Your task to perform on an android device: Search for acer nitro on amazon.com, select the first entry, add it to the cart, then select checkout. Image 0: 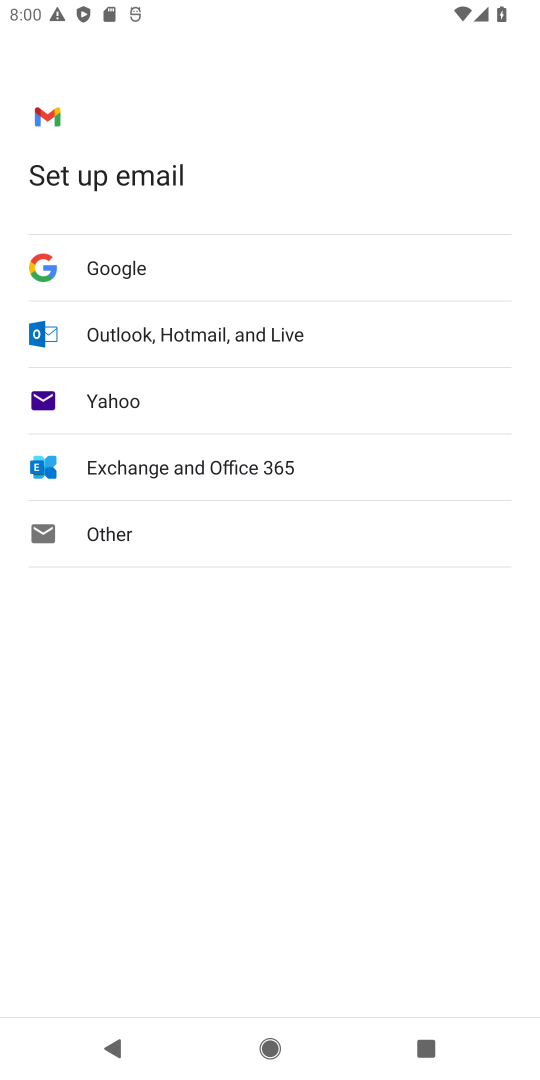
Step 0: press home button
Your task to perform on an android device: Search for acer nitro on amazon.com, select the first entry, add it to the cart, then select checkout. Image 1: 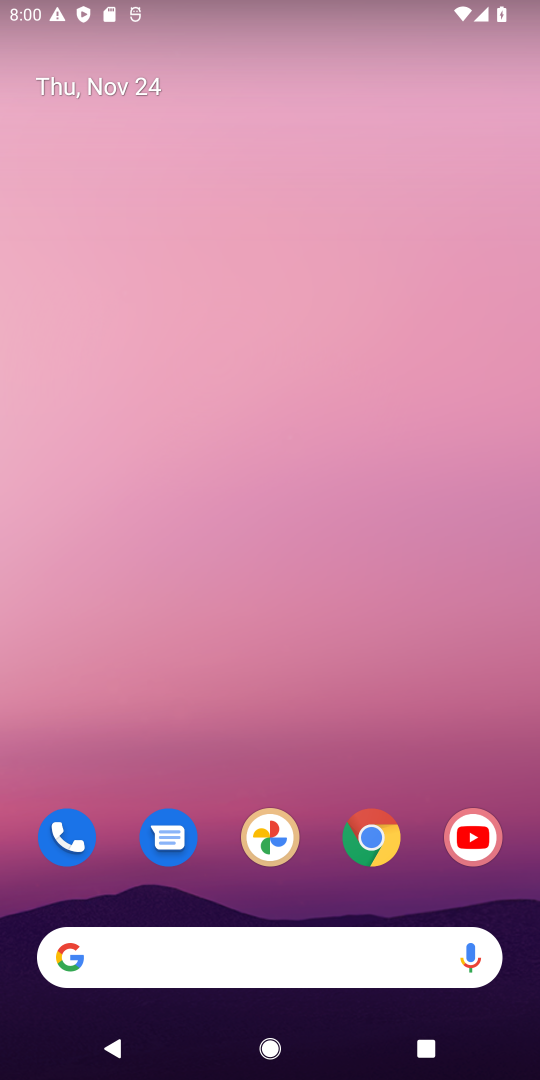
Step 1: click (386, 829)
Your task to perform on an android device: Search for acer nitro on amazon.com, select the first entry, add it to the cart, then select checkout. Image 2: 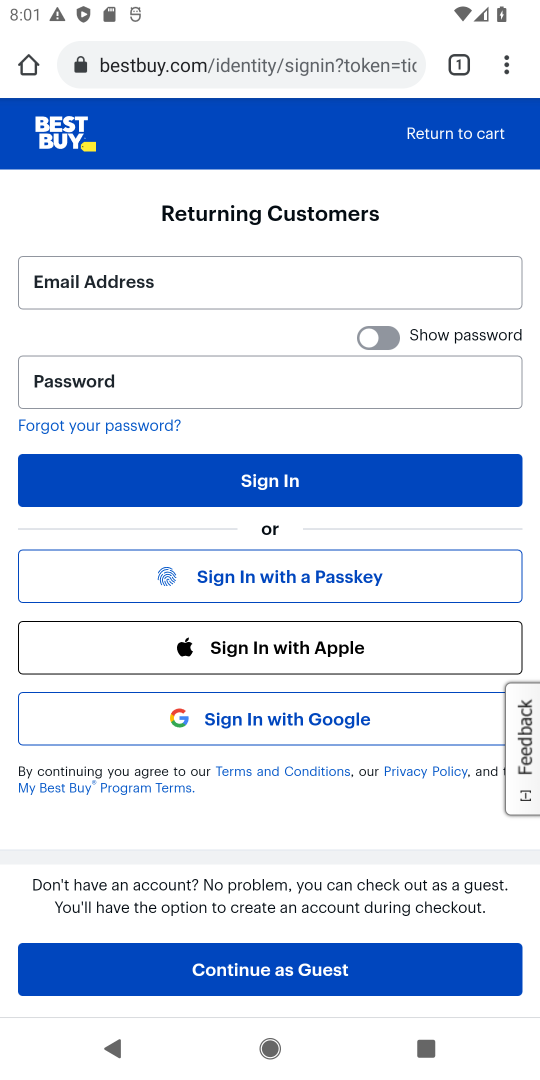
Step 2: click (288, 63)
Your task to perform on an android device: Search for acer nitro on amazon.com, select the first entry, add it to the cart, then select checkout. Image 3: 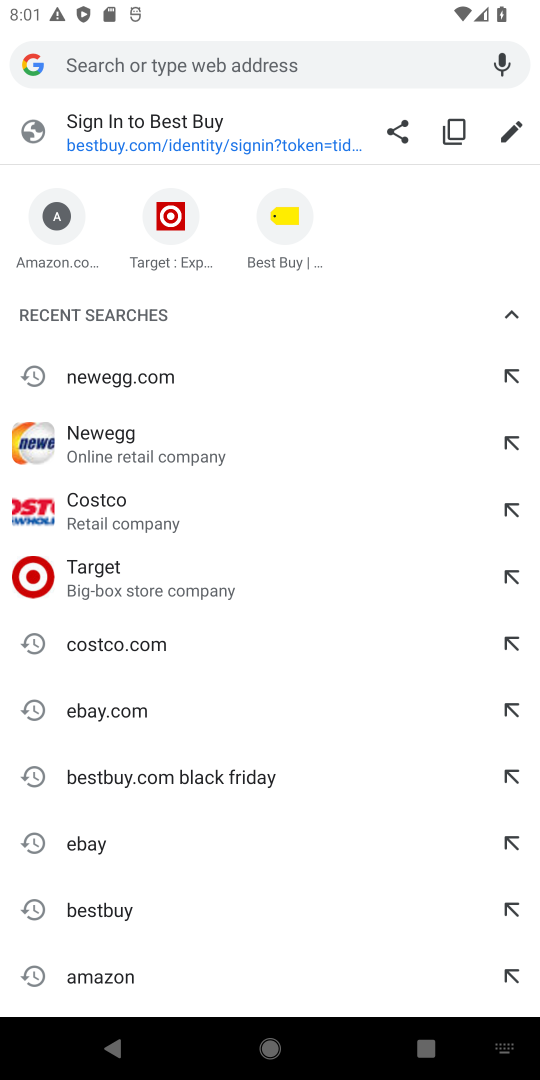
Step 3: type "amazon.com"
Your task to perform on an android device: Search for acer nitro on amazon.com, select the first entry, add it to the cart, then select checkout. Image 4: 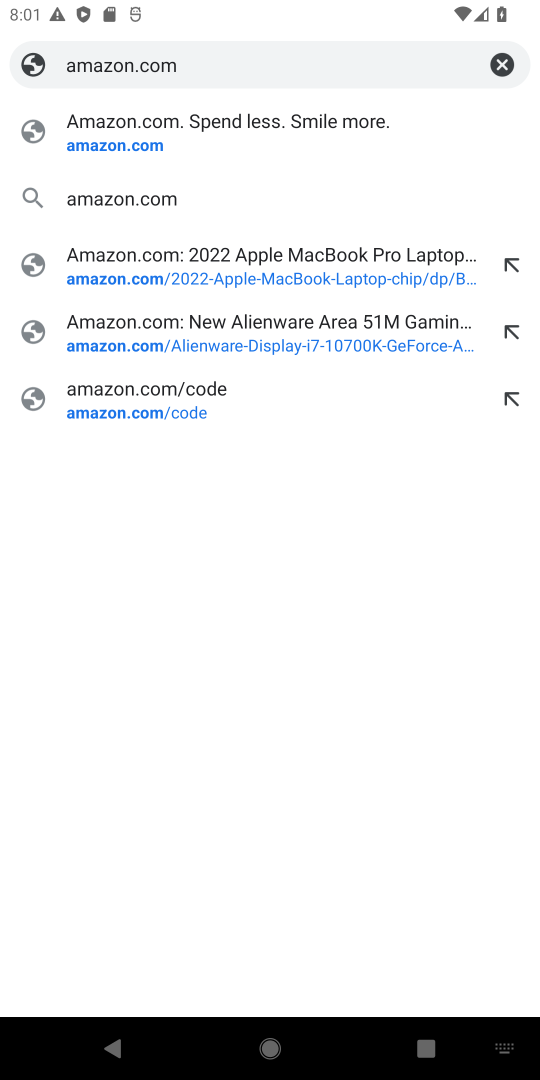
Step 4: click (316, 141)
Your task to perform on an android device: Search for acer nitro on amazon.com, select the first entry, add it to the cart, then select checkout. Image 5: 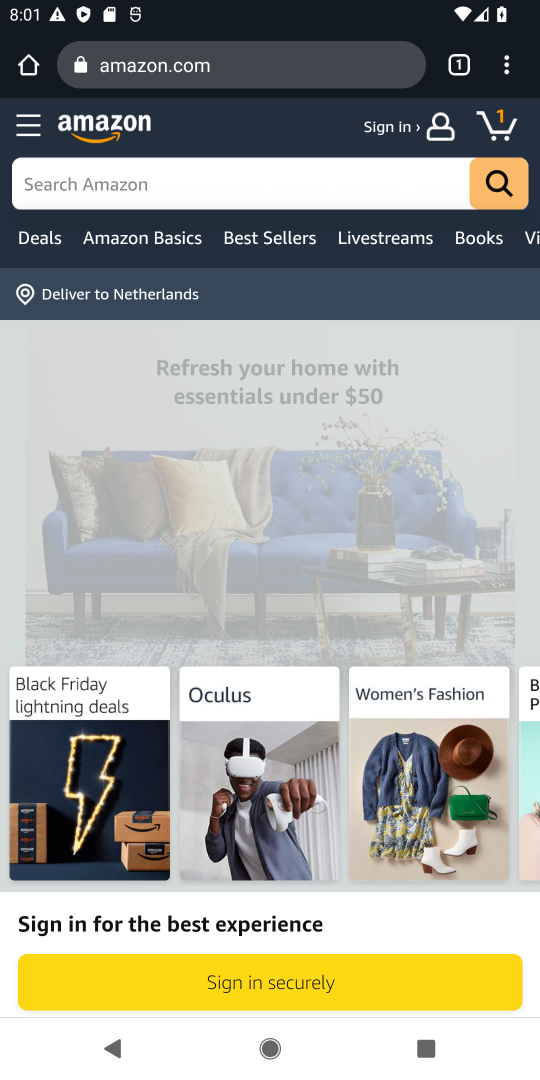
Step 5: click (284, 186)
Your task to perform on an android device: Search for acer nitro on amazon.com, select the first entry, add it to the cart, then select checkout. Image 6: 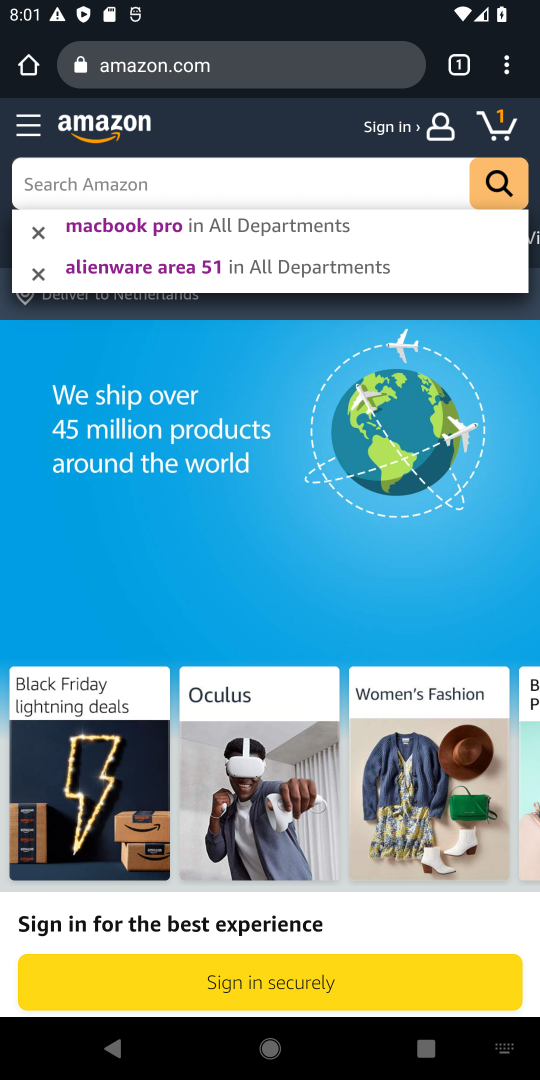
Step 6: type "acer nitro"
Your task to perform on an android device: Search for acer nitro on amazon.com, select the first entry, add it to the cart, then select checkout. Image 7: 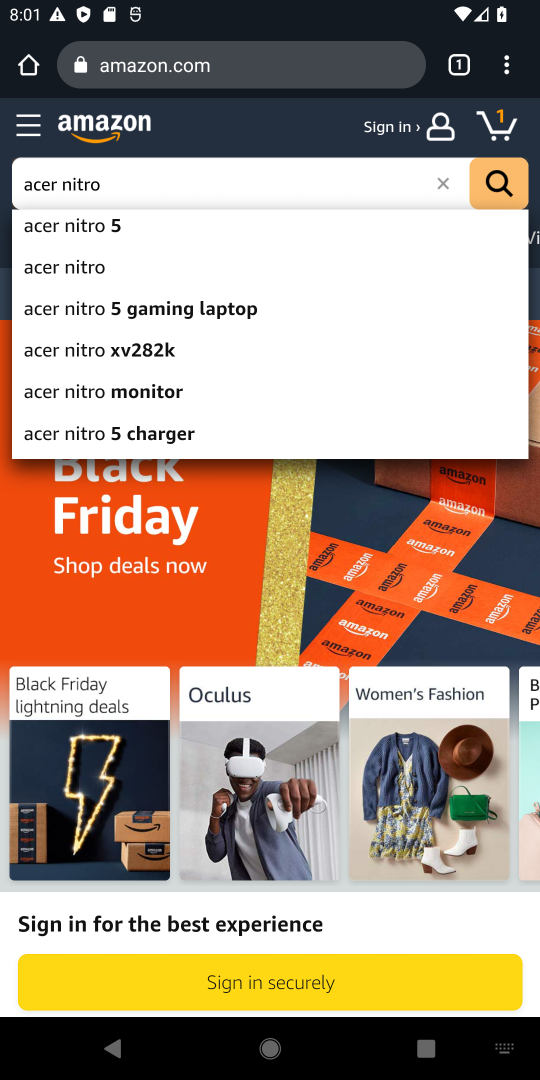
Step 7: click (91, 275)
Your task to perform on an android device: Search for acer nitro on amazon.com, select the first entry, add it to the cart, then select checkout. Image 8: 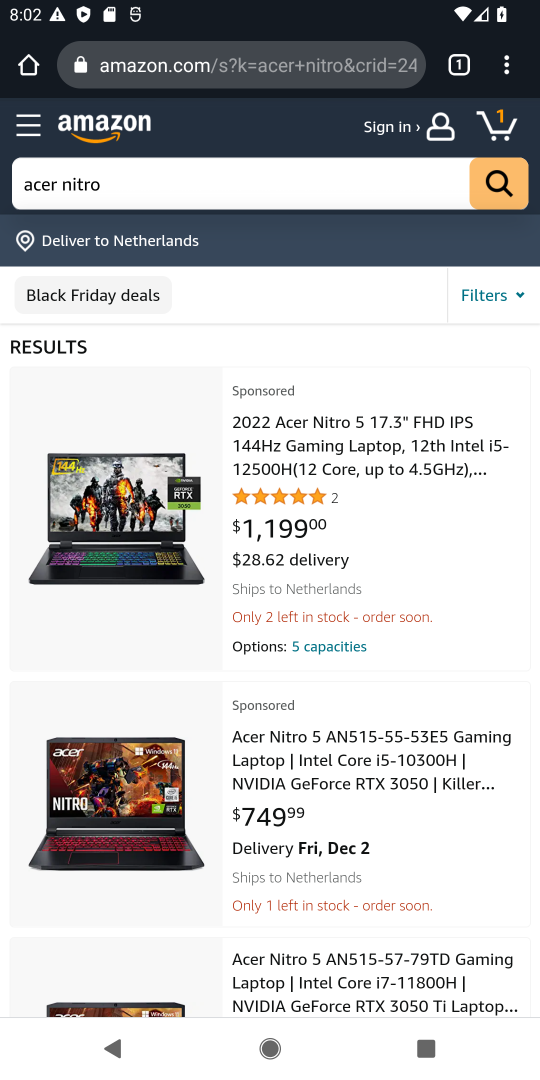
Step 8: click (165, 533)
Your task to perform on an android device: Search for acer nitro on amazon.com, select the first entry, add it to the cart, then select checkout. Image 9: 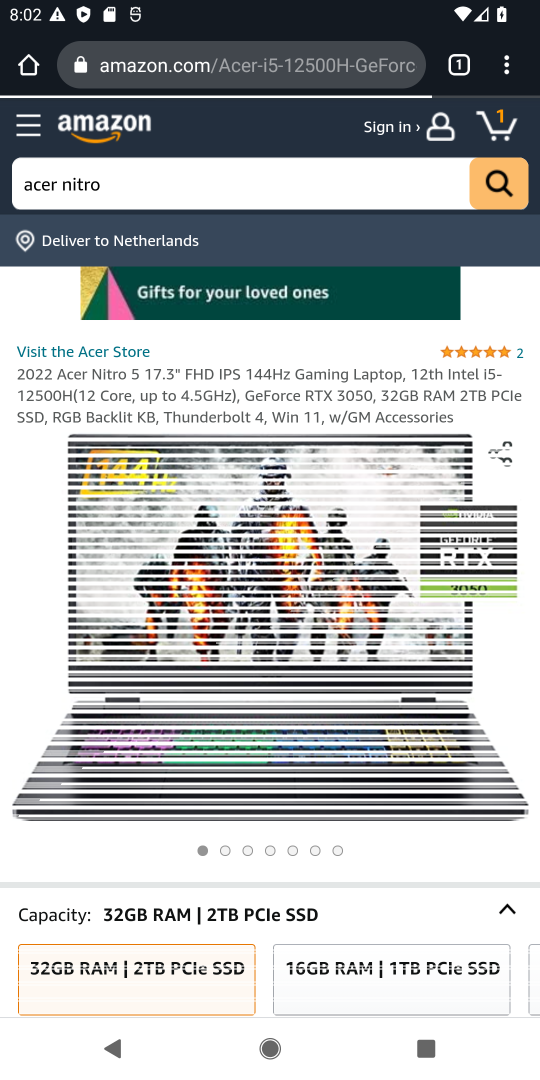
Step 9: drag from (293, 811) to (239, 290)
Your task to perform on an android device: Search for acer nitro on amazon.com, select the first entry, add it to the cart, then select checkout. Image 10: 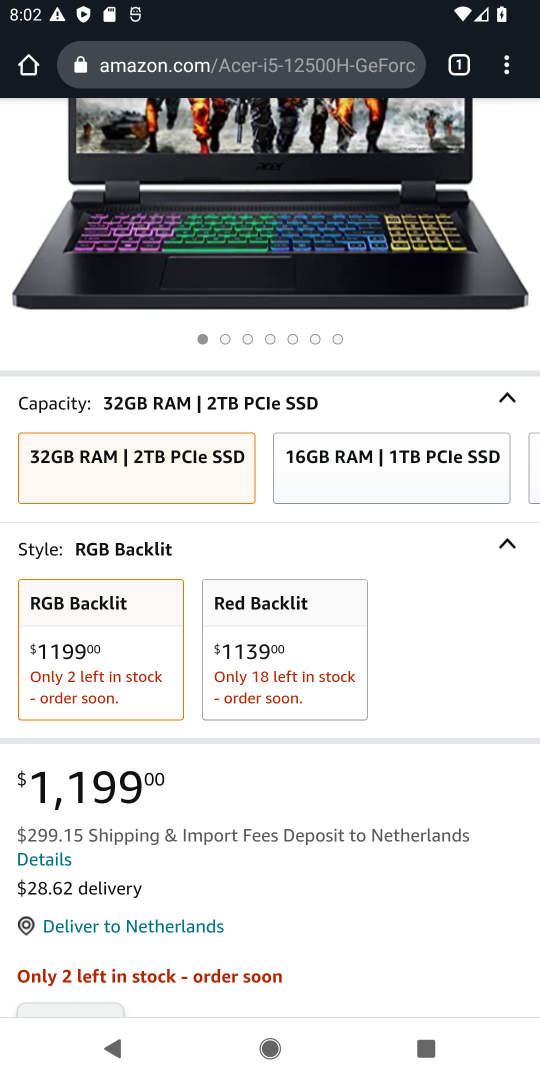
Step 10: drag from (323, 839) to (328, 352)
Your task to perform on an android device: Search for acer nitro on amazon.com, select the first entry, add it to the cart, then select checkout. Image 11: 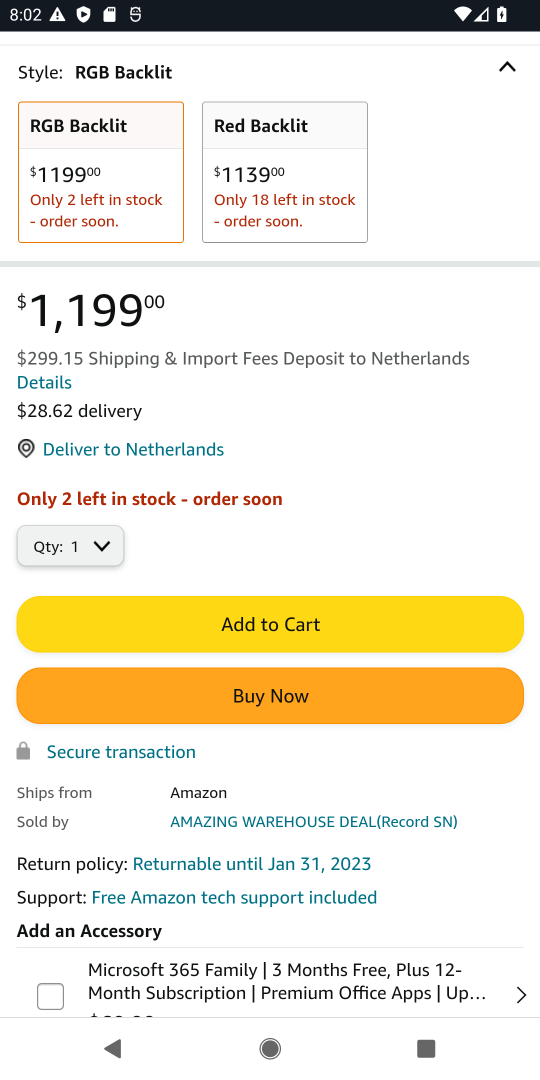
Step 11: click (287, 620)
Your task to perform on an android device: Search for acer nitro on amazon.com, select the first entry, add it to the cart, then select checkout. Image 12: 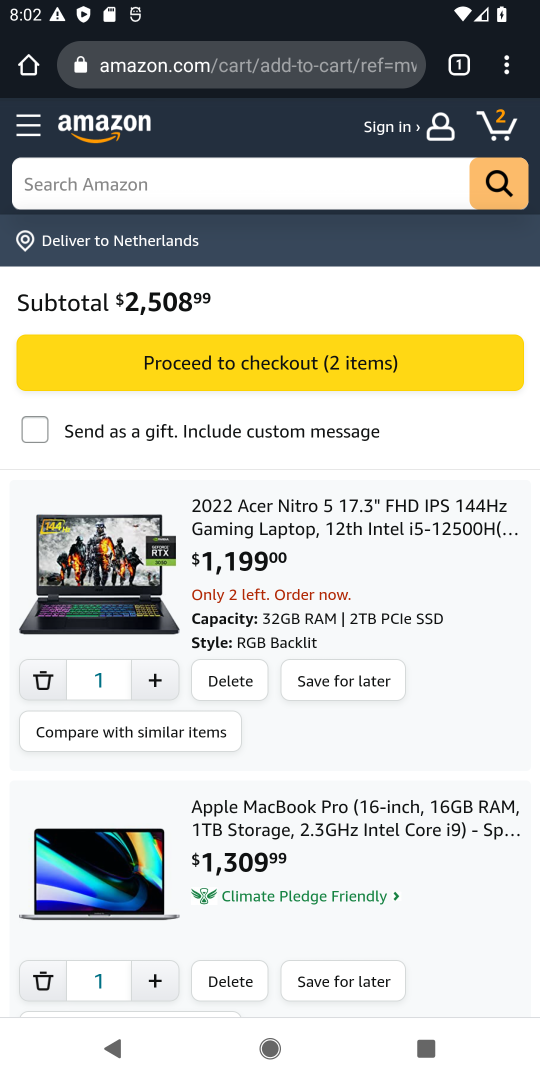
Step 12: click (335, 352)
Your task to perform on an android device: Search for acer nitro on amazon.com, select the first entry, add it to the cart, then select checkout. Image 13: 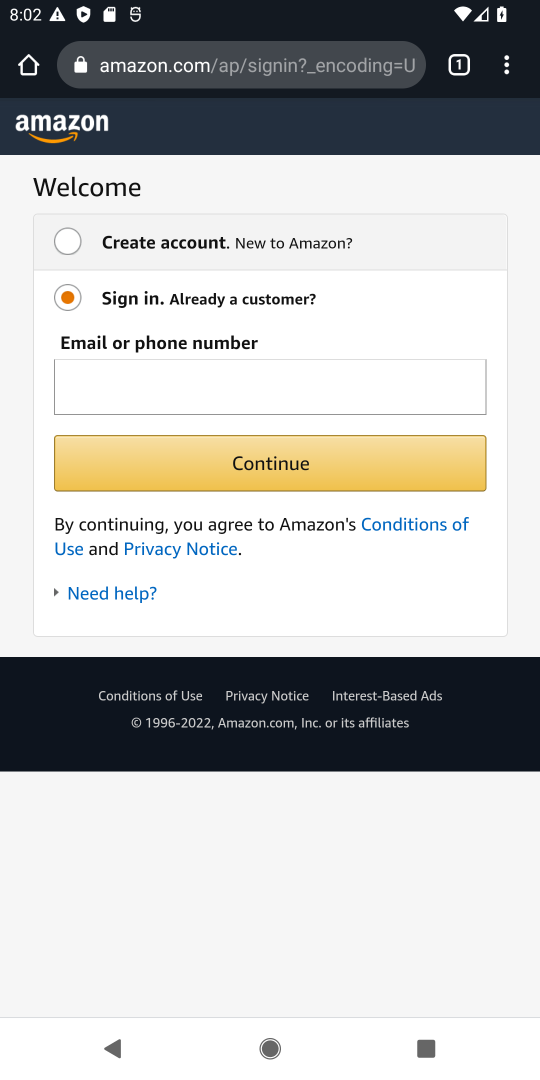
Step 13: click (312, 373)
Your task to perform on an android device: Search for acer nitro on amazon.com, select the first entry, add it to the cart, then select checkout. Image 14: 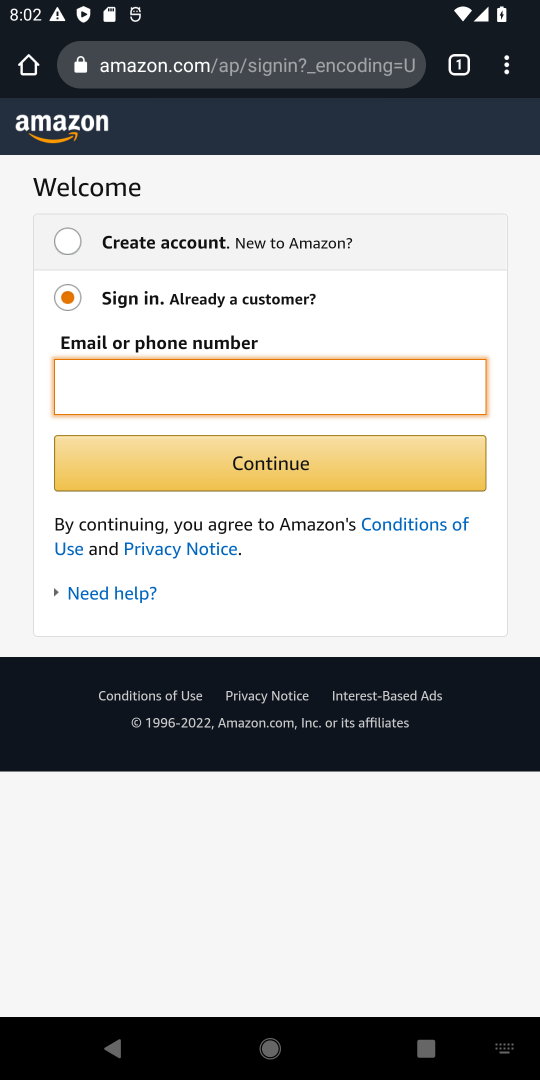
Step 14: task complete